Your task to perform on an android device: Do I have any events today? Image 0: 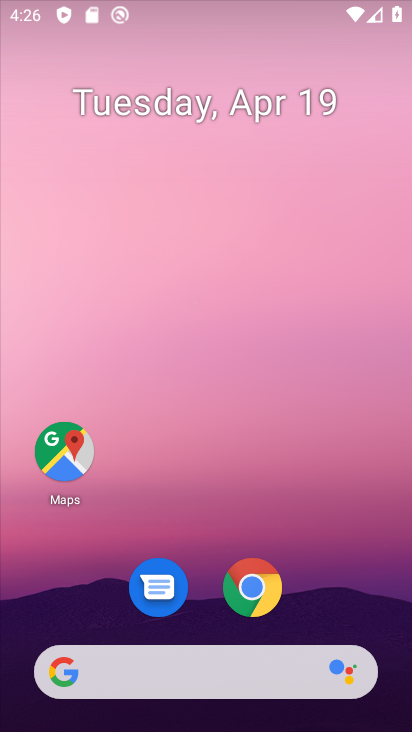
Step 0: drag from (342, 566) to (236, 26)
Your task to perform on an android device: Do I have any events today? Image 1: 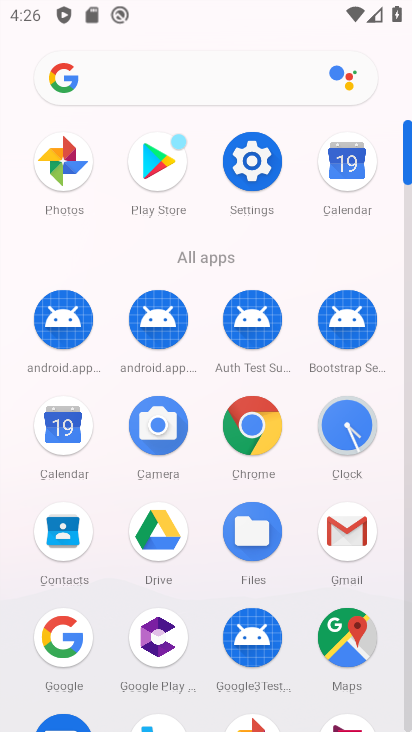
Step 1: drag from (20, 568) to (0, 288)
Your task to perform on an android device: Do I have any events today? Image 2: 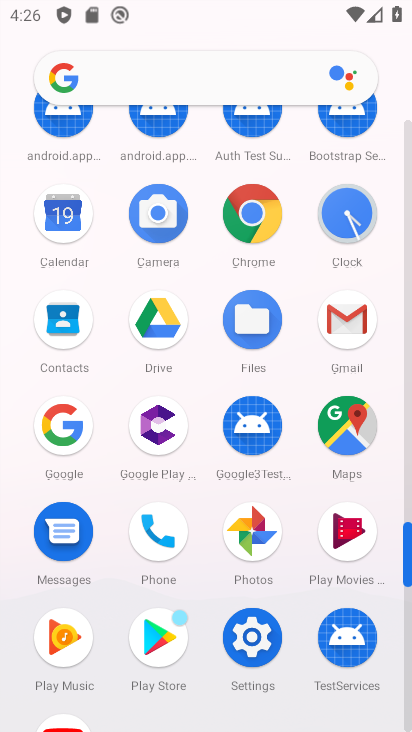
Step 2: drag from (0, 467) to (4, 195)
Your task to perform on an android device: Do I have any events today? Image 3: 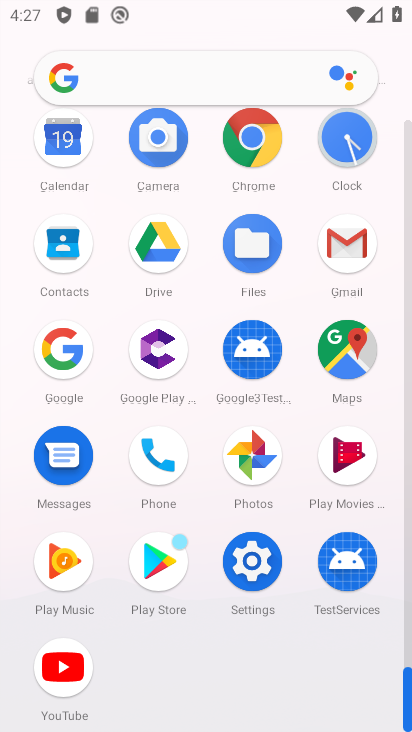
Step 3: drag from (15, 219) to (5, 458)
Your task to perform on an android device: Do I have any events today? Image 4: 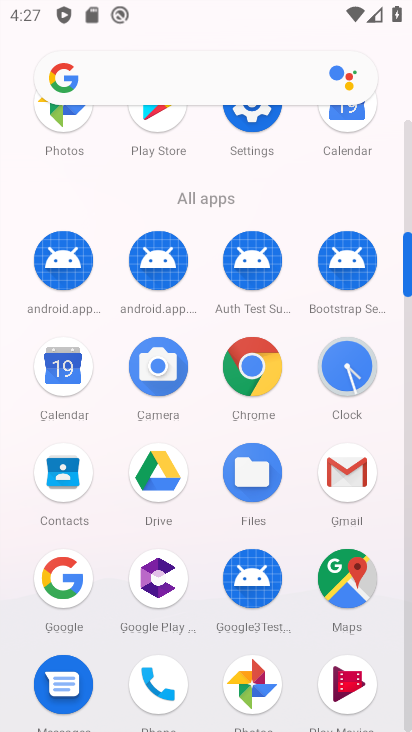
Step 4: click (55, 367)
Your task to perform on an android device: Do I have any events today? Image 5: 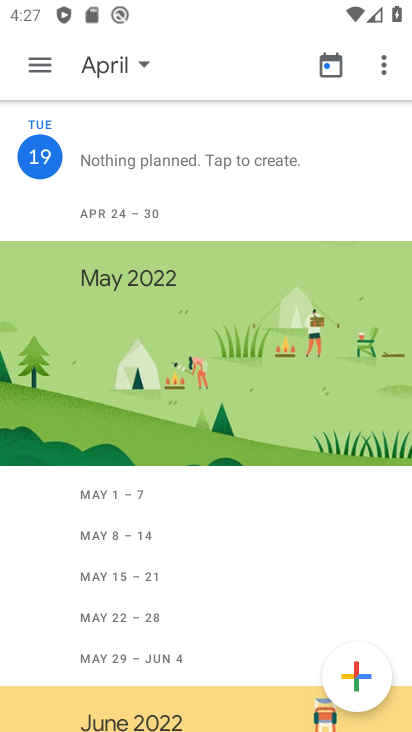
Step 5: click (113, 60)
Your task to perform on an android device: Do I have any events today? Image 6: 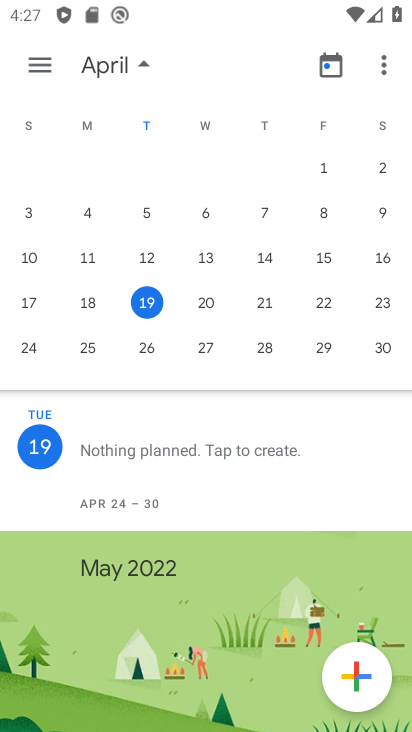
Step 6: click (150, 307)
Your task to perform on an android device: Do I have any events today? Image 7: 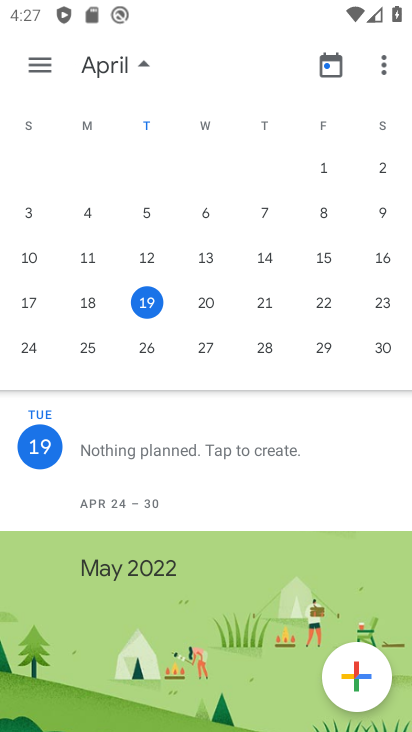
Step 7: click (53, 82)
Your task to perform on an android device: Do I have any events today? Image 8: 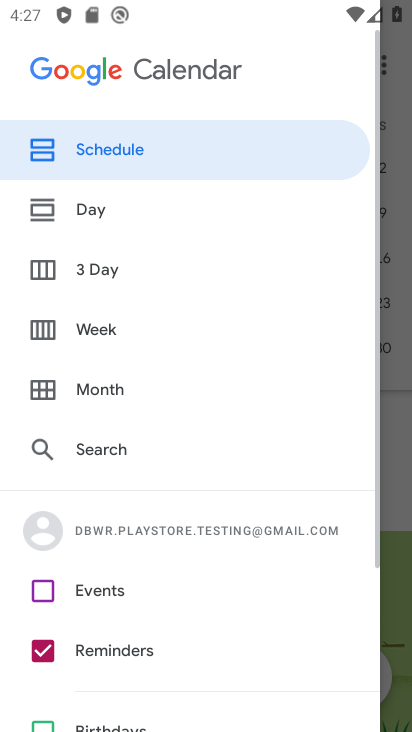
Step 8: click (96, 218)
Your task to perform on an android device: Do I have any events today? Image 9: 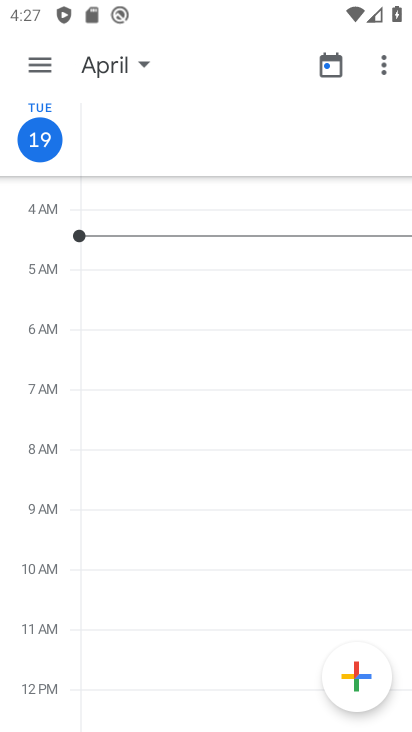
Step 9: task complete